Your task to perform on an android device: choose inbox layout in the gmail app Image 0: 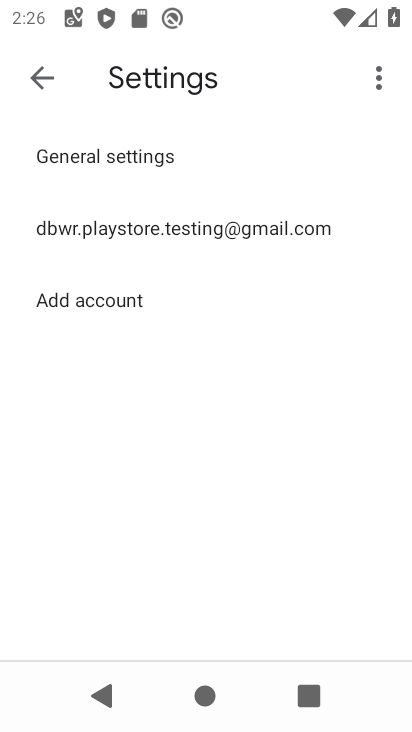
Step 0: press home button
Your task to perform on an android device: choose inbox layout in the gmail app Image 1: 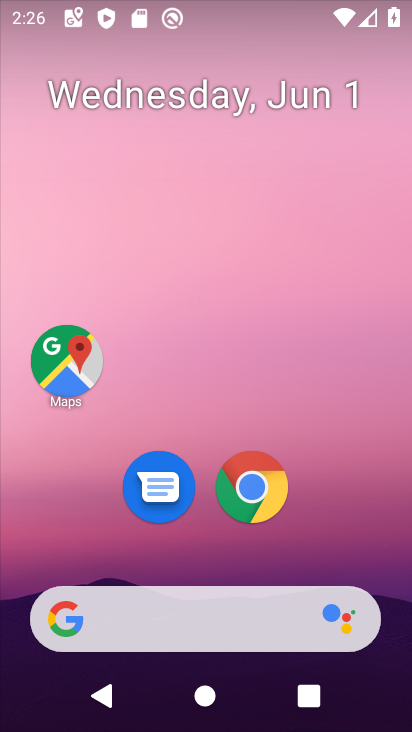
Step 1: drag from (367, 552) to (371, 145)
Your task to perform on an android device: choose inbox layout in the gmail app Image 2: 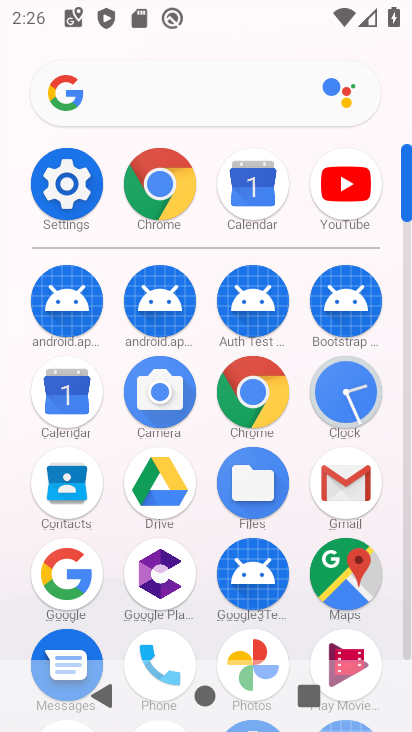
Step 2: click (350, 486)
Your task to perform on an android device: choose inbox layout in the gmail app Image 3: 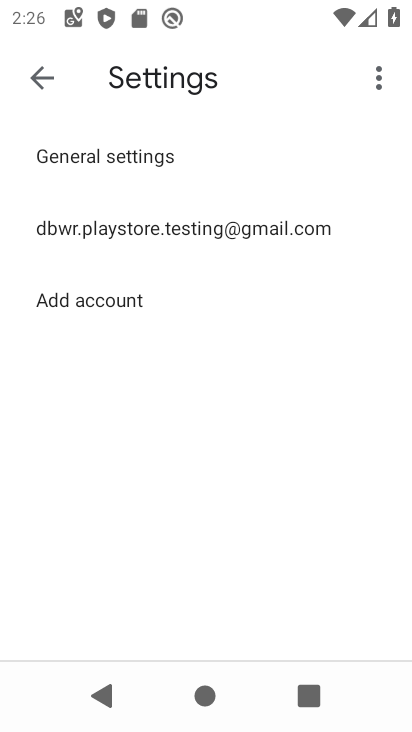
Step 3: click (208, 225)
Your task to perform on an android device: choose inbox layout in the gmail app Image 4: 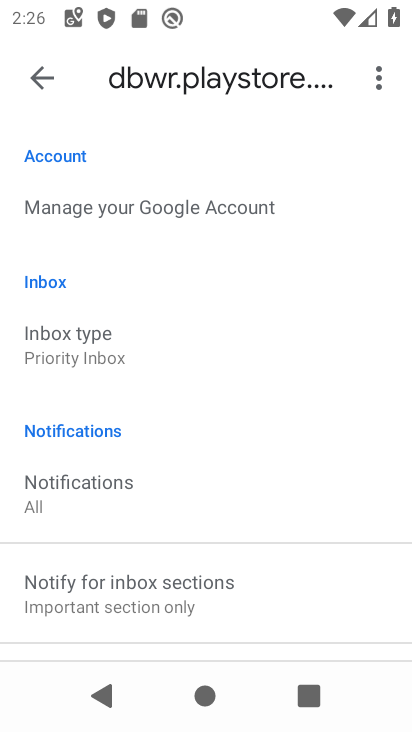
Step 4: drag from (292, 407) to (299, 343)
Your task to perform on an android device: choose inbox layout in the gmail app Image 5: 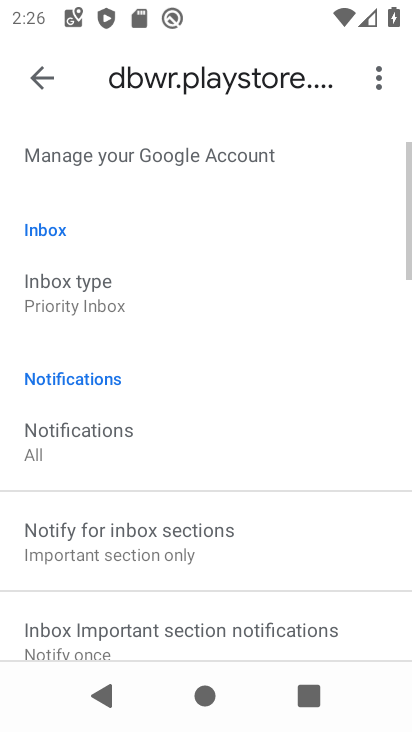
Step 5: drag from (319, 464) to (323, 371)
Your task to perform on an android device: choose inbox layout in the gmail app Image 6: 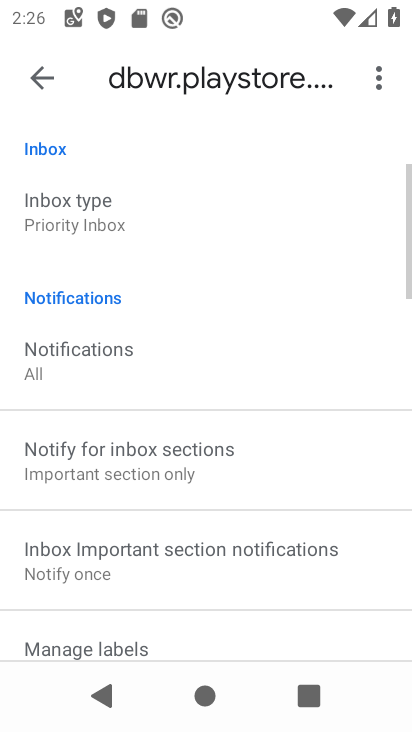
Step 6: drag from (335, 467) to (342, 380)
Your task to perform on an android device: choose inbox layout in the gmail app Image 7: 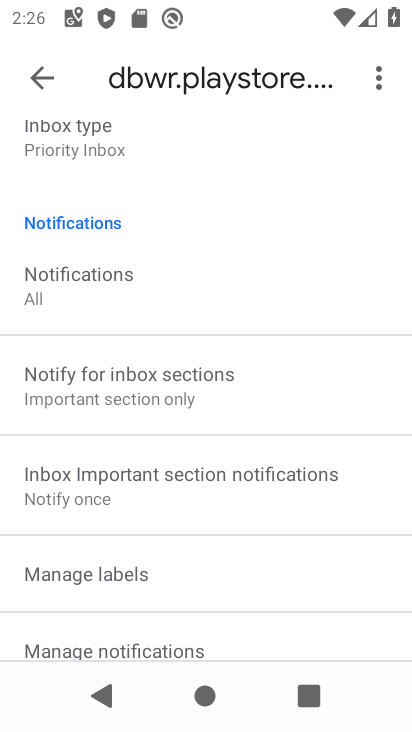
Step 7: drag from (354, 469) to (358, 382)
Your task to perform on an android device: choose inbox layout in the gmail app Image 8: 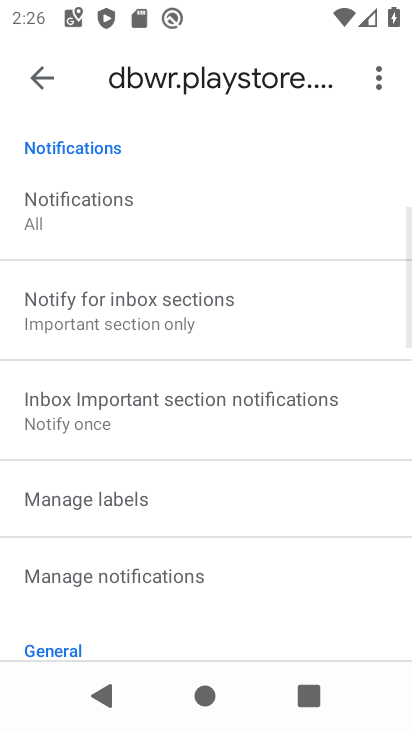
Step 8: drag from (354, 484) to (361, 384)
Your task to perform on an android device: choose inbox layout in the gmail app Image 9: 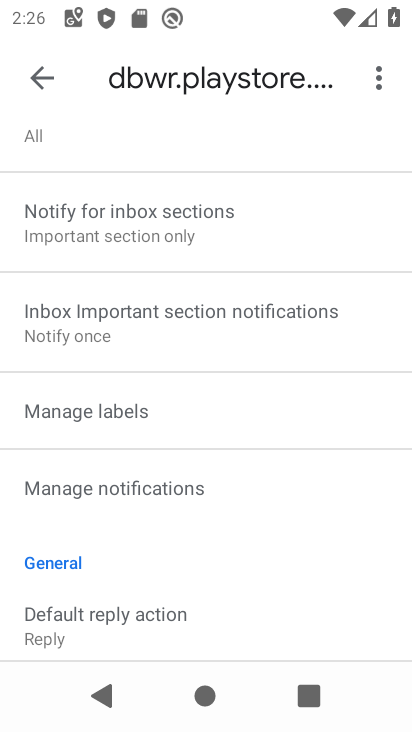
Step 9: drag from (340, 479) to (345, 403)
Your task to perform on an android device: choose inbox layout in the gmail app Image 10: 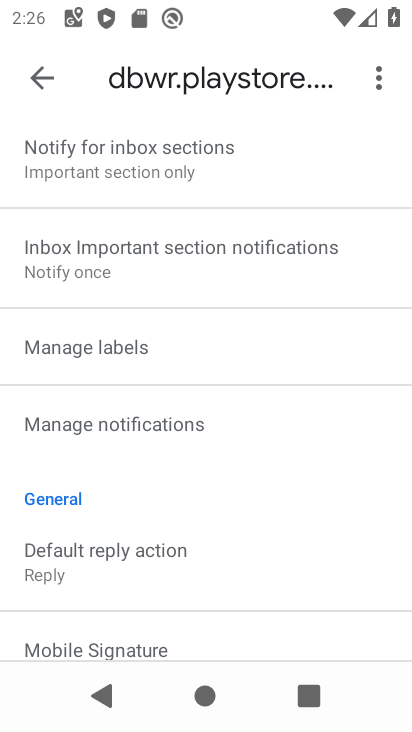
Step 10: drag from (352, 506) to (341, 407)
Your task to perform on an android device: choose inbox layout in the gmail app Image 11: 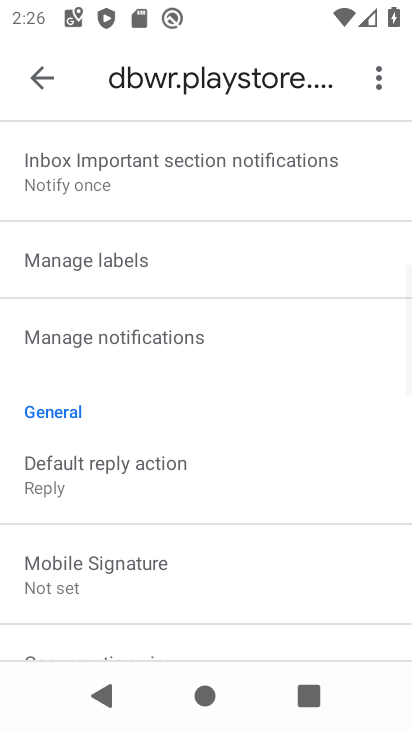
Step 11: drag from (338, 523) to (337, 420)
Your task to perform on an android device: choose inbox layout in the gmail app Image 12: 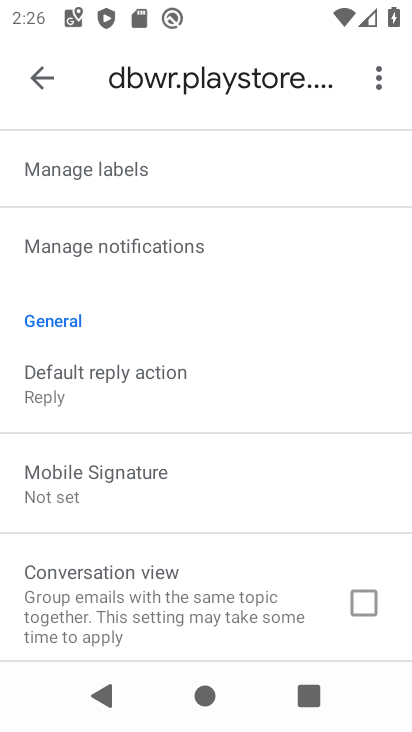
Step 12: drag from (321, 538) to (316, 427)
Your task to perform on an android device: choose inbox layout in the gmail app Image 13: 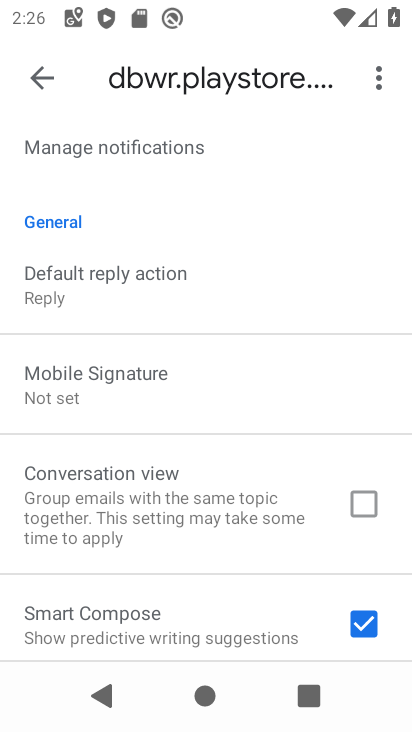
Step 13: drag from (318, 573) to (335, 435)
Your task to perform on an android device: choose inbox layout in the gmail app Image 14: 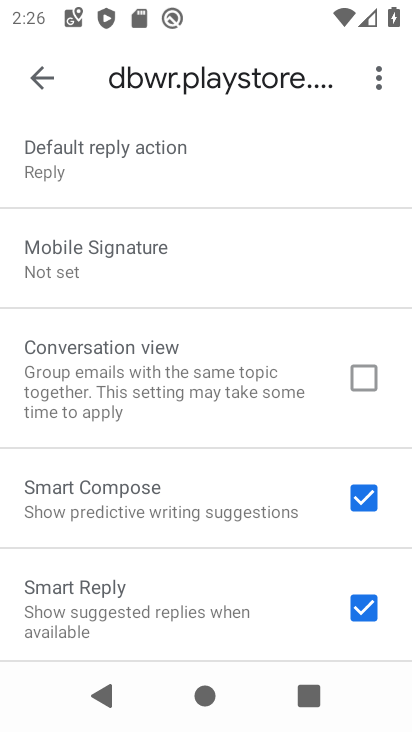
Step 14: drag from (321, 579) to (311, 404)
Your task to perform on an android device: choose inbox layout in the gmail app Image 15: 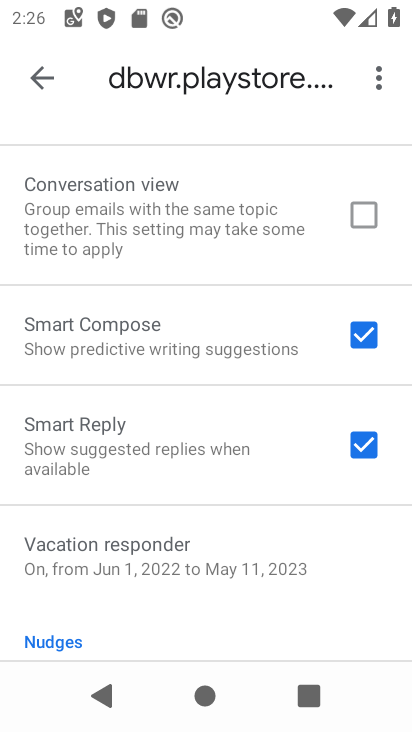
Step 15: drag from (309, 299) to (298, 427)
Your task to perform on an android device: choose inbox layout in the gmail app Image 16: 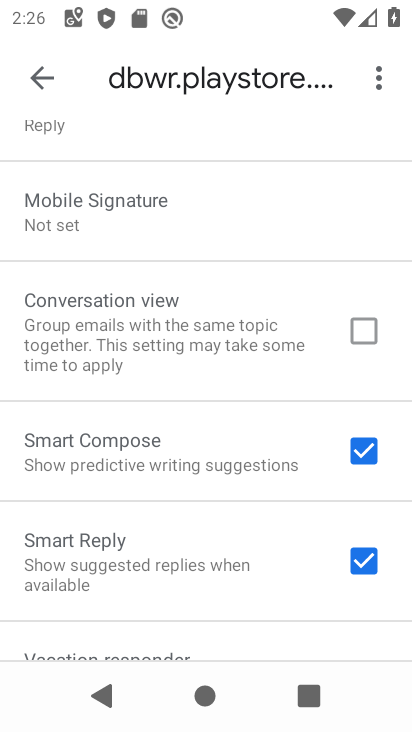
Step 16: drag from (293, 274) to (287, 391)
Your task to perform on an android device: choose inbox layout in the gmail app Image 17: 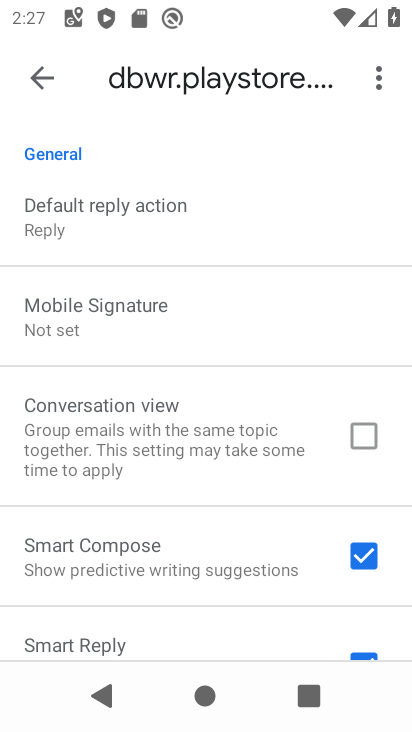
Step 17: drag from (289, 301) to (290, 416)
Your task to perform on an android device: choose inbox layout in the gmail app Image 18: 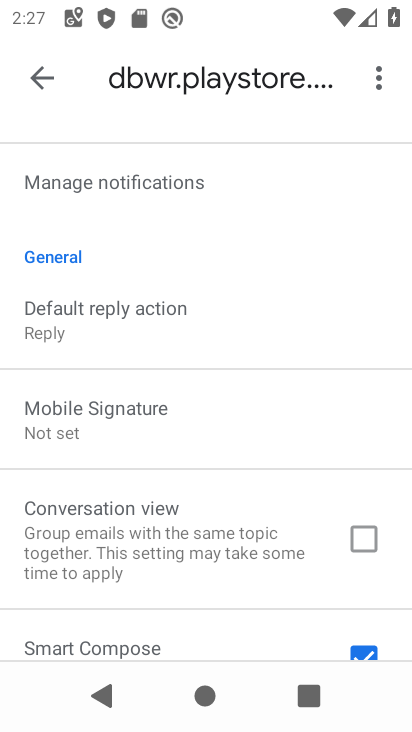
Step 18: drag from (280, 292) to (268, 408)
Your task to perform on an android device: choose inbox layout in the gmail app Image 19: 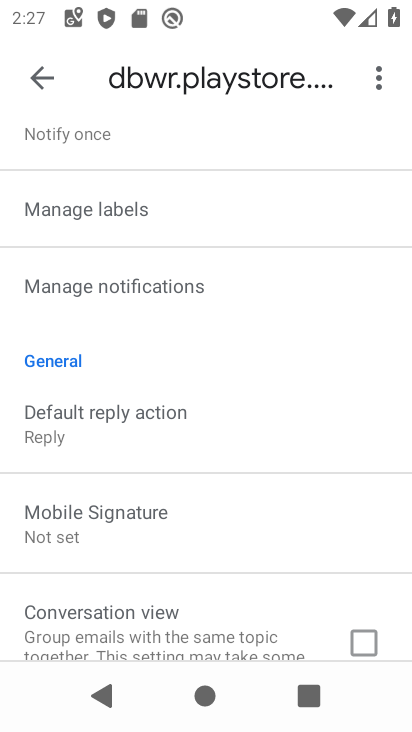
Step 19: drag from (277, 279) to (282, 428)
Your task to perform on an android device: choose inbox layout in the gmail app Image 20: 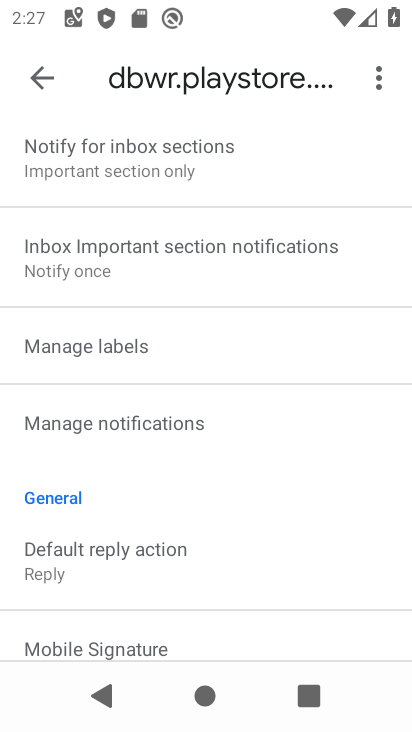
Step 20: drag from (279, 300) to (275, 421)
Your task to perform on an android device: choose inbox layout in the gmail app Image 21: 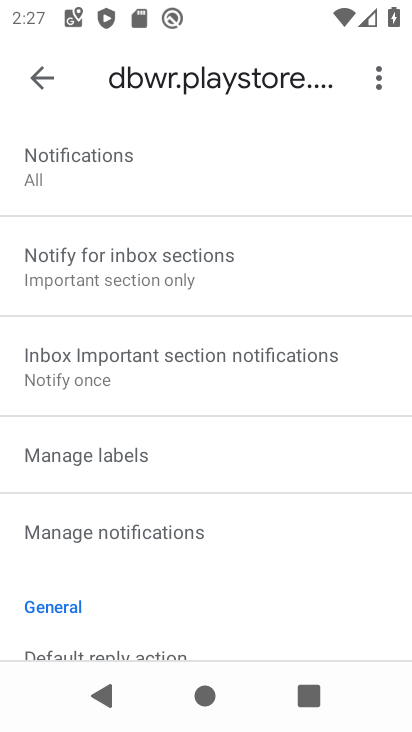
Step 21: drag from (287, 215) to (290, 366)
Your task to perform on an android device: choose inbox layout in the gmail app Image 22: 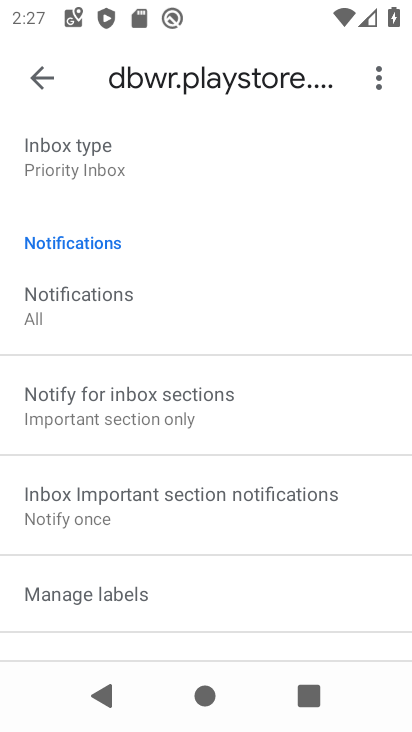
Step 22: drag from (282, 230) to (272, 354)
Your task to perform on an android device: choose inbox layout in the gmail app Image 23: 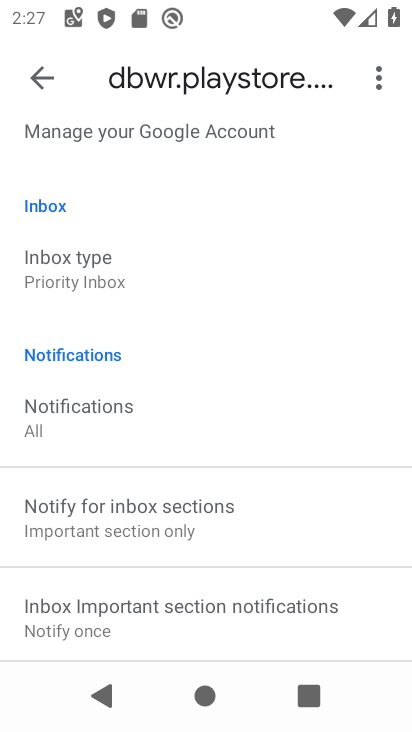
Step 23: click (119, 290)
Your task to perform on an android device: choose inbox layout in the gmail app Image 24: 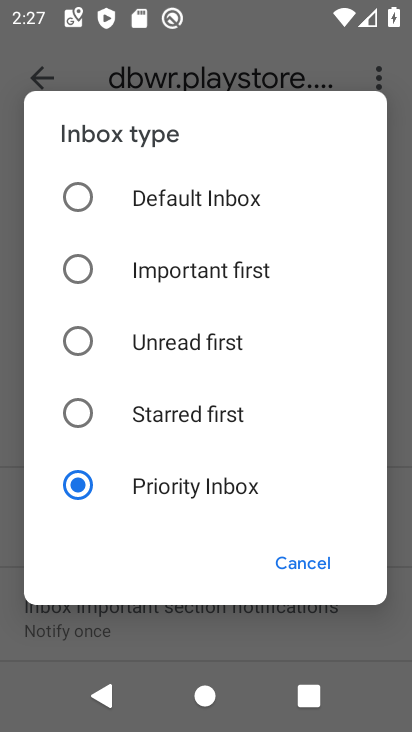
Step 24: click (192, 261)
Your task to perform on an android device: choose inbox layout in the gmail app Image 25: 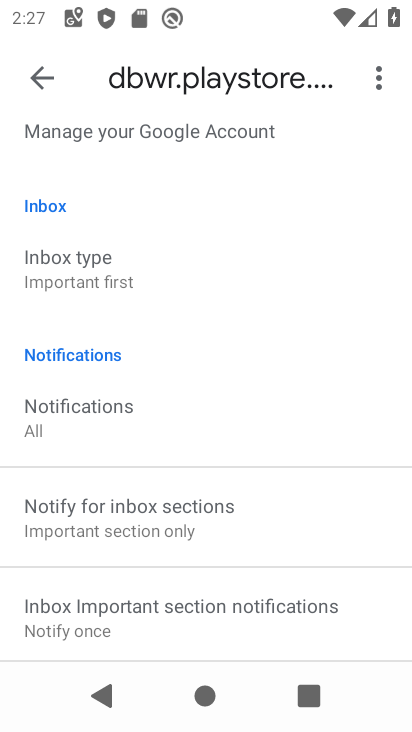
Step 25: task complete